Your task to perform on an android device: Go to Wikipedia Image 0: 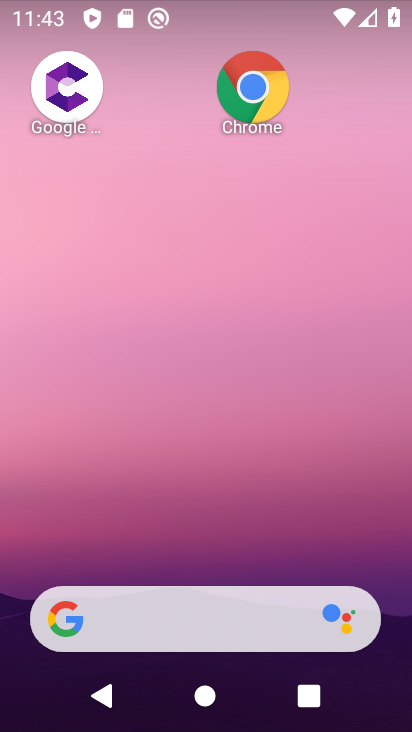
Step 0: click (248, 85)
Your task to perform on an android device: Go to Wikipedia Image 1: 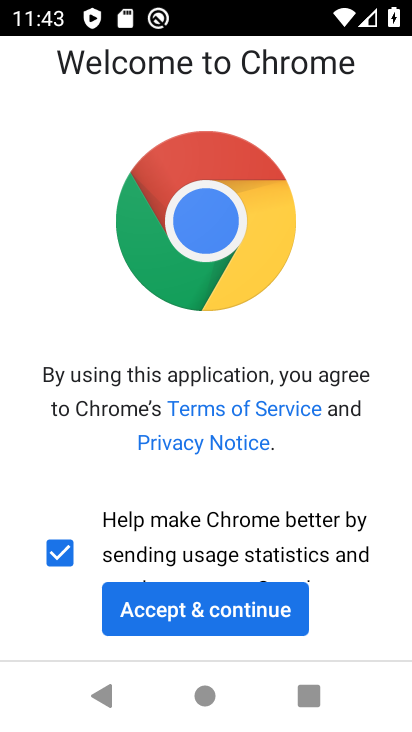
Step 1: click (224, 614)
Your task to perform on an android device: Go to Wikipedia Image 2: 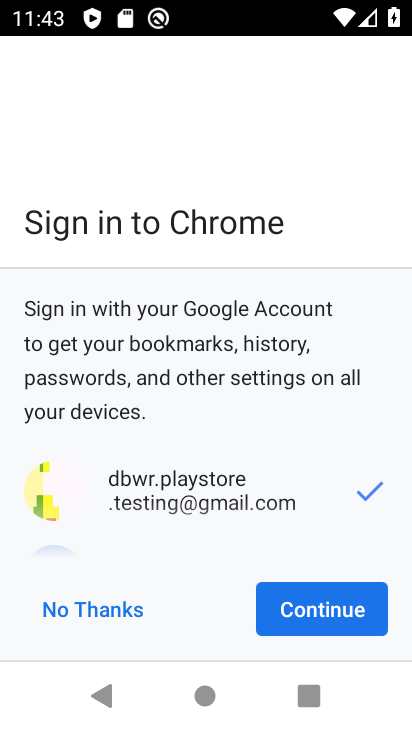
Step 2: click (344, 605)
Your task to perform on an android device: Go to Wikipedia Image 3: 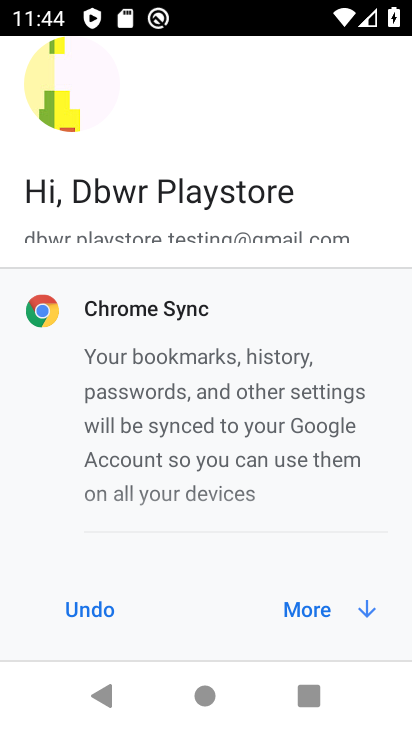
Step 3: click (301, 609)
Your task to perform on an android device: Go to Wikipedia Image 4: 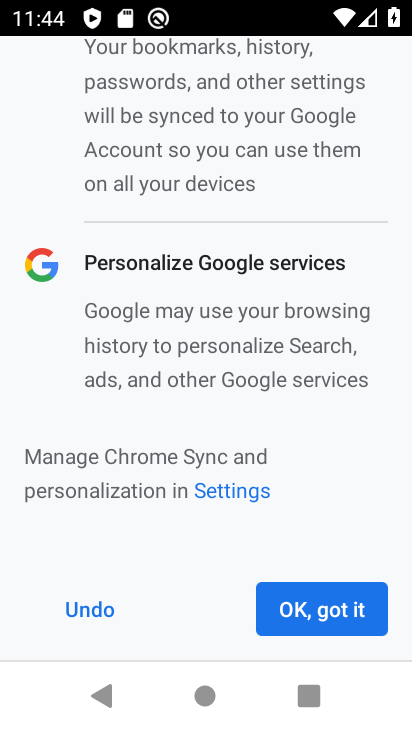
Step 4: click (301, 609)
Your task to perform on an android device: Go to Wikipedia Image 5: 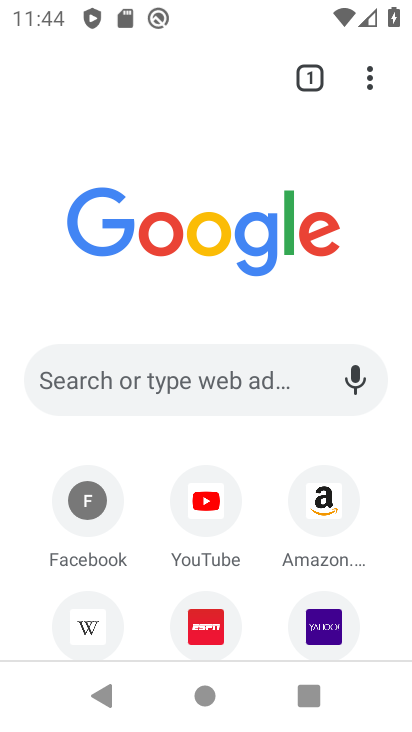
Step 5: click (88, 621)
Your task to perform on an android device: Go to Wikipedia Image 6: 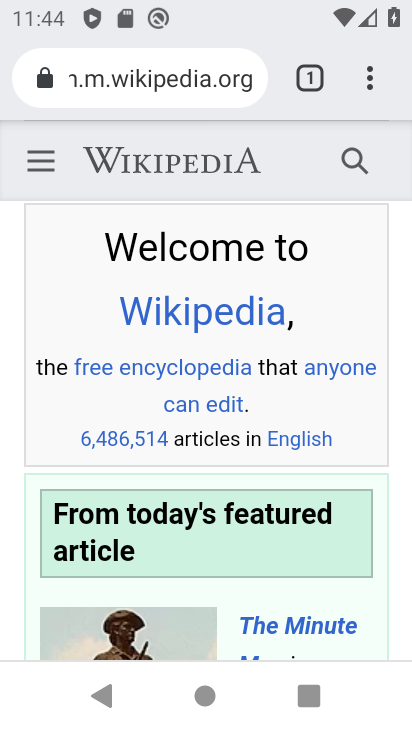
Step 6: task complete